Your task to perform on an android device: Open Google Chrome and click the shortcut for Amazon.com Image 0: 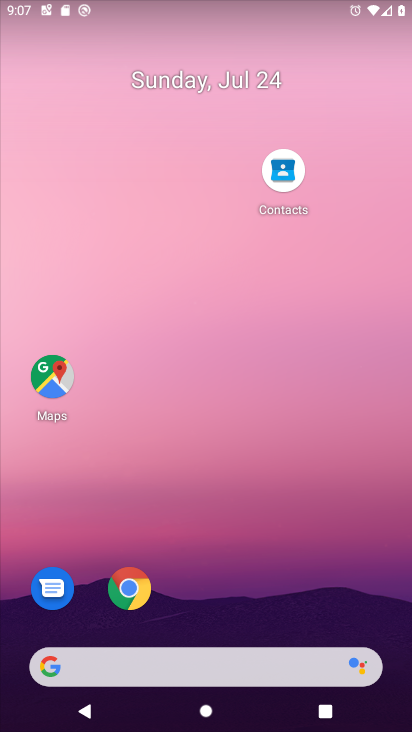
Step 0: press home button
Your task to perform on an android device: Open Google Chrome and click the shortcut for Amazon.com Image 1: 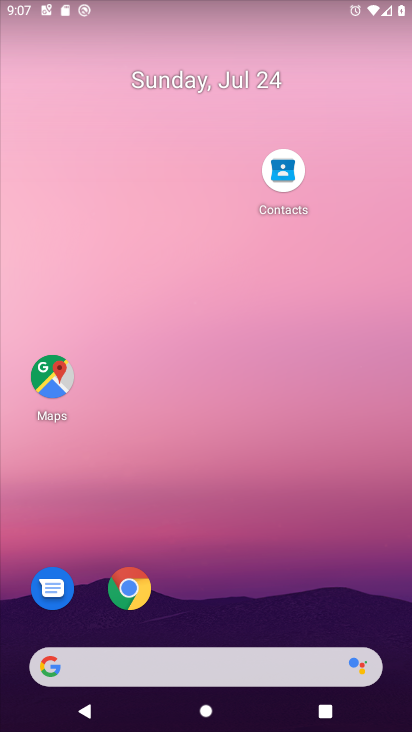
Step 1: click (127, 583)
Your task to perform on an android device: Open Google Chrome and click the shortcut for Amazon.com Image 2: 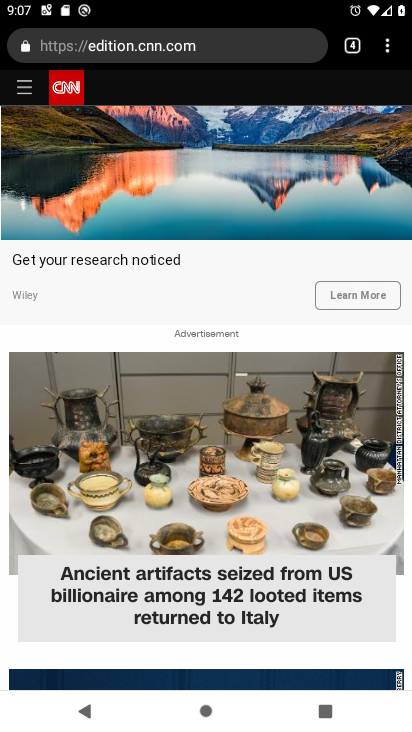
Step 2: click (354, 43)
Your task to perform on an android device: Open Google Chrome and click the shortcut for Amazon.com Image 3: 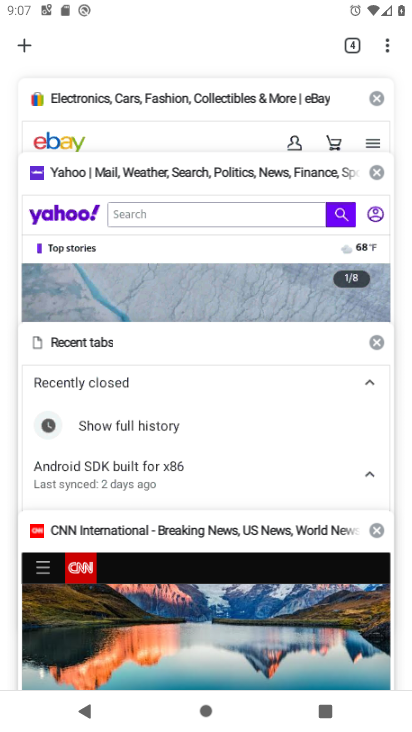
Step 3: click (19, 44)
Your task to perform on an android device: Open Google Chrome and click the shortcut for Amazon.com Image 4: 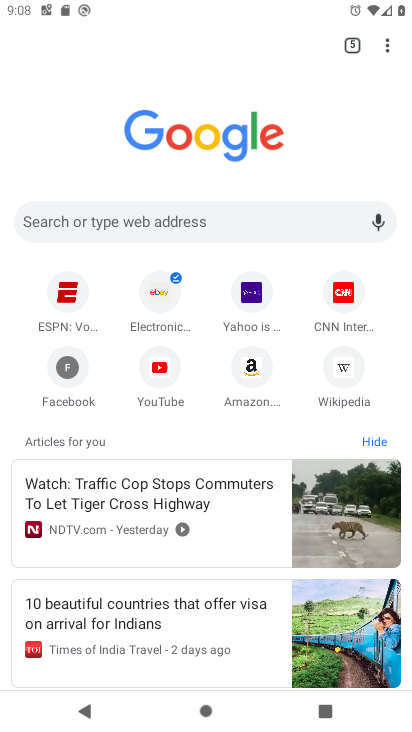
Step 4: click (250, 366)
Your task to perform on an android device: Open Google Chrome and click the shortcut for Amazon.com Image 5: 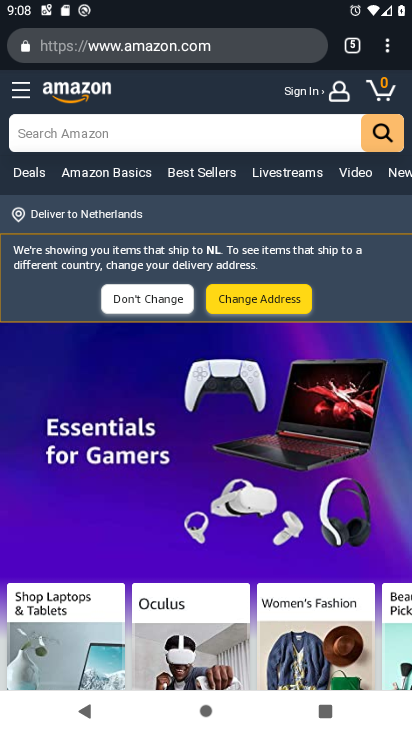
Step 5: task complete